Your task to perform on an android device: Open Google Maps Image 0: 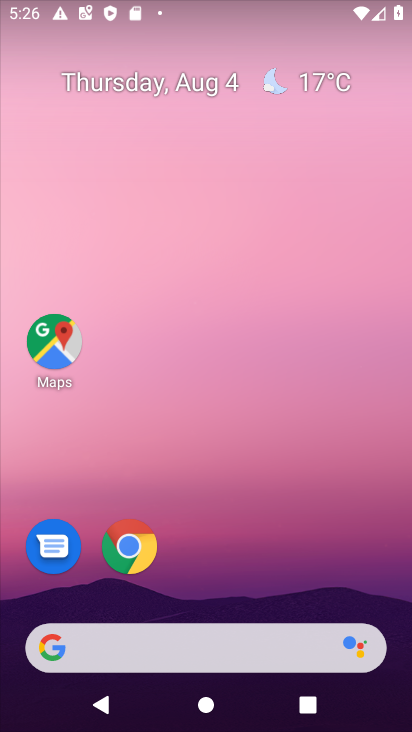
Step 0: click (43, 342)
Your task to perform on an android device: Open Google Maps Image 1: 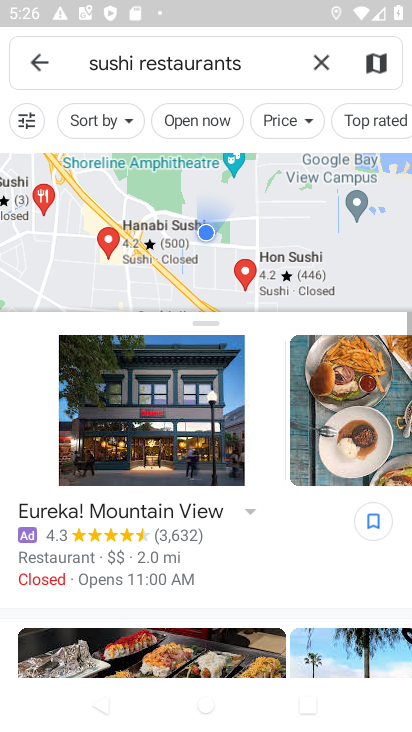
Step 1: task complete